Your task to perform on an android device: open chrome and create a bookmark for the current page Image 0: 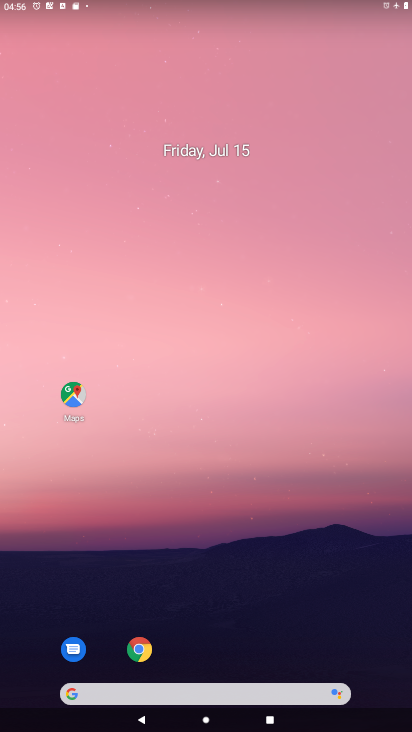
Step 0: click (140, 649)
Your task to perform on an android device: open chrome and create a bookmark for the current page Image 1: 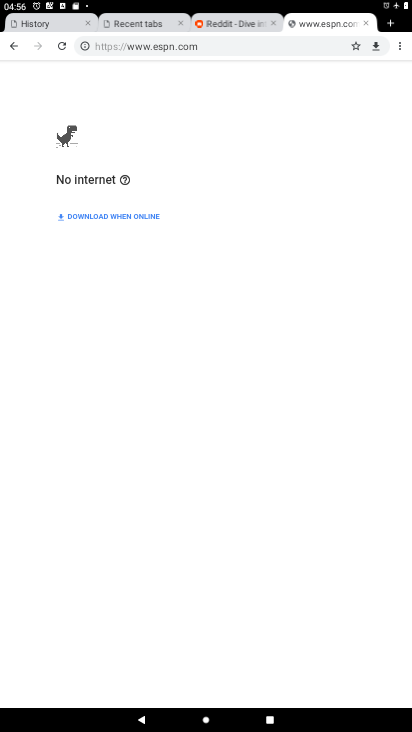
Step 1: click (355, 48)
Your task to perform on an android device: open chrome and create a bookmark for the current page Image 2: 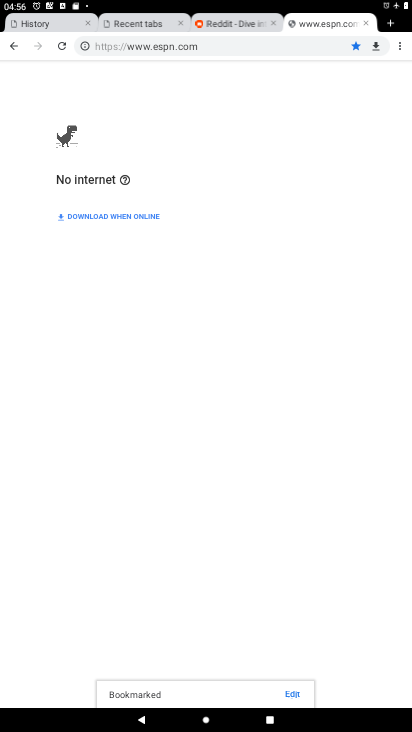
Step 2: task complete